Your task to perform on an android device: toggle priority inbox in the gmail app Image 0: 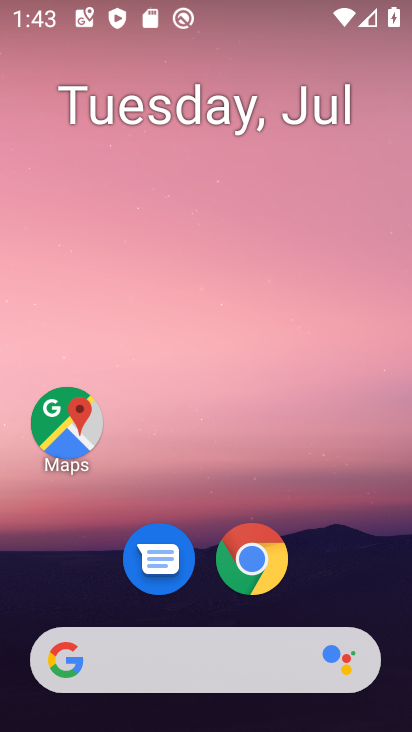
Step 0: press home button
Your task to perform on an android device: toggle priority inbox in the gmail app Image 1: 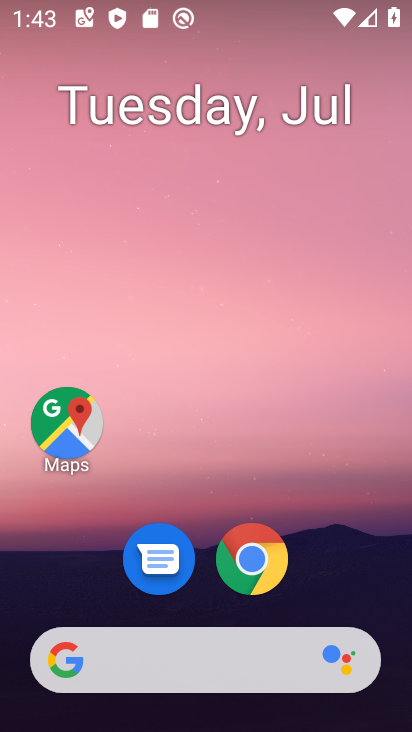
Step 1: drag from (365, 583) to (363, 93)
Your task to perform on an android device: toggle priority inbox in the gmail app Image 2: 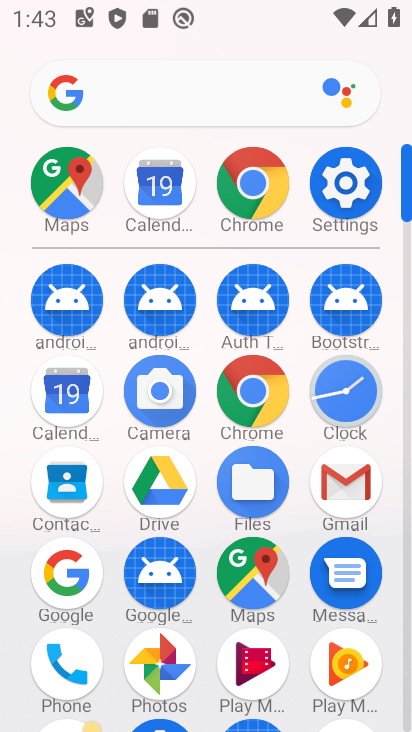
Step 2: click (352, 485)
Your task to perform on an android device: toggle priority inbox in the gmail app Image 3: 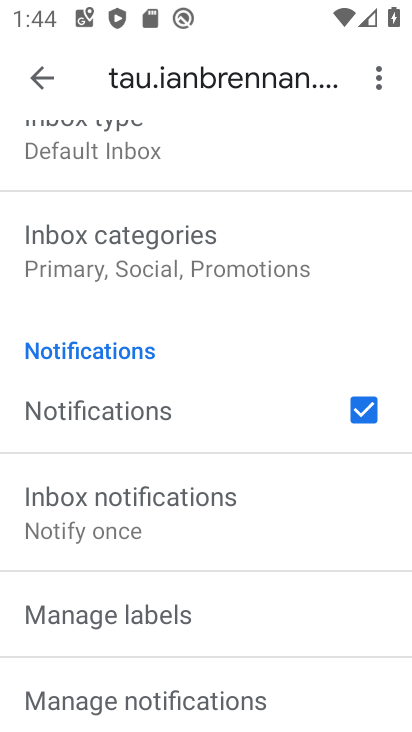
Step 3: drag from (299, 430) to (302, 504)
Your task to perform on an android device: toggle priority inbox in the gmail app Image 4: 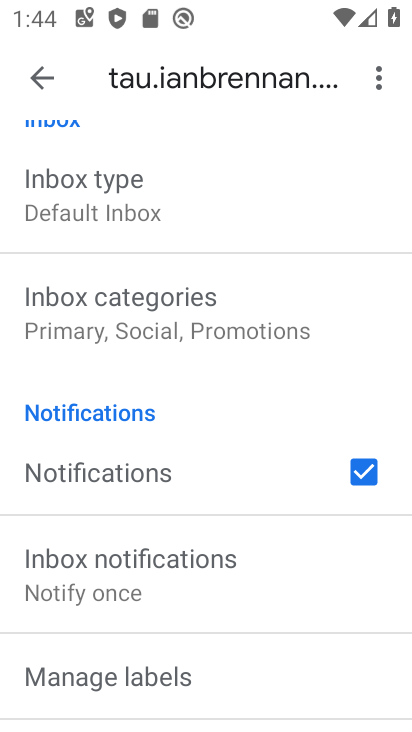
Step 4: drag from (302, 397) to (305, 465)
Your task to perform on an android device: toggle priority inbox in the gmail app Image 5: 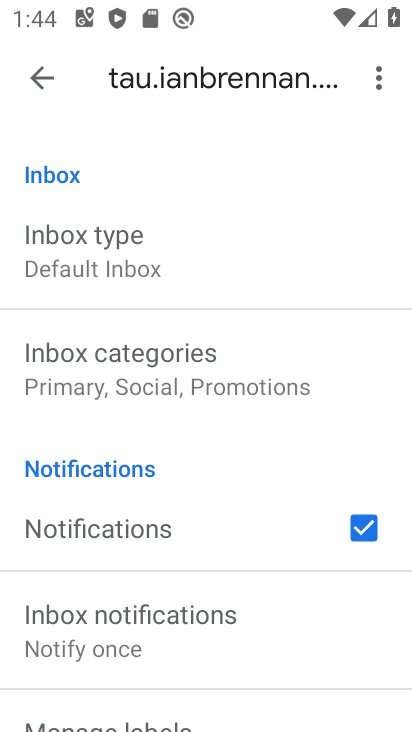
Step 5: drag from (295, 506) to (295, 437)
Your task to perform on an android device: toggle priority inbox in the gmail app Image 6: 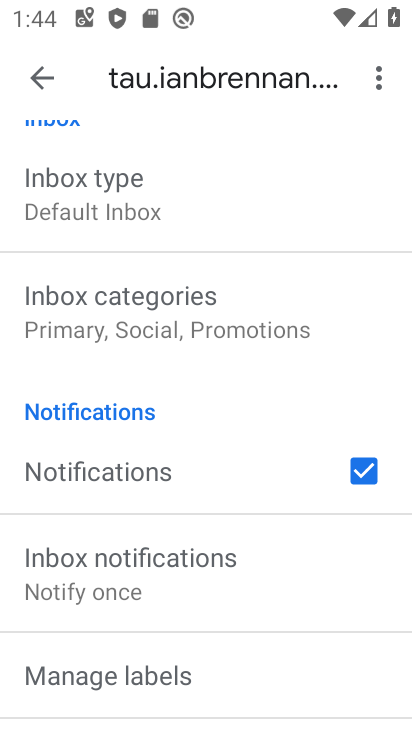
Step 6: drag from (286, 532) to (288, 414)
Your task to perform on an android device: toggle priority inbox in the gmail app Image 7: 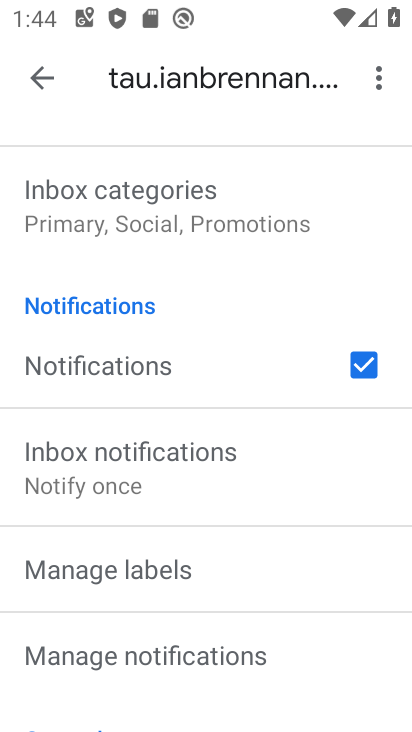
Step 7: drag from (289, 522) to (288, 454)
Your task to perform on an android device: toggle priority inbox in the gmail app Image 8: 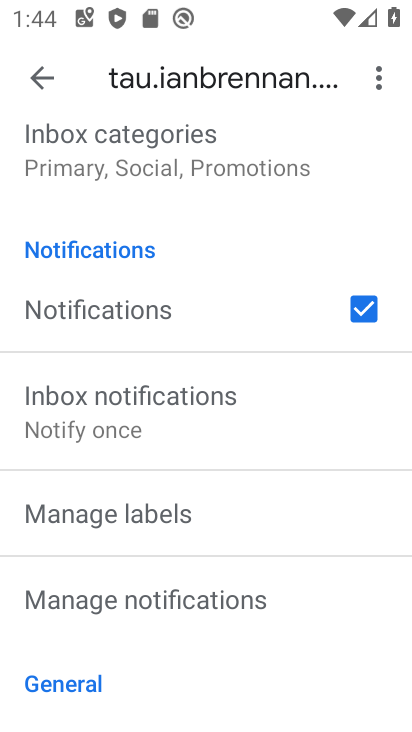
Step 8: drag from (289, 528) to (289, 439)
Your task to perform on an android device: toggle priority inbox in the gmail app Image 9: 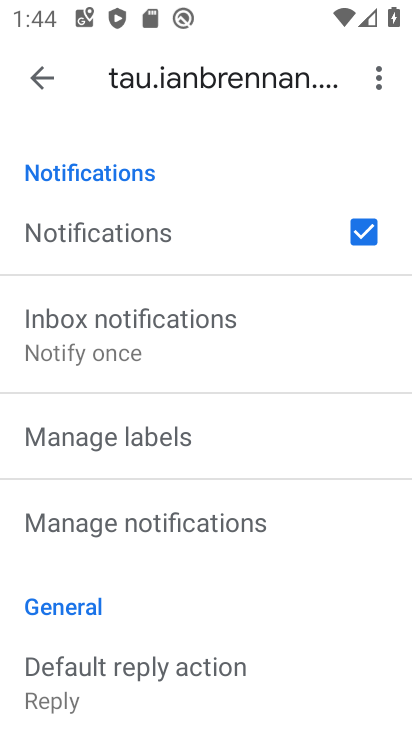
Step 9: drag from (289, 531) to (294, 437)
Your task to perform on an android device: toggle priority inbox in the gmail app Image 10: 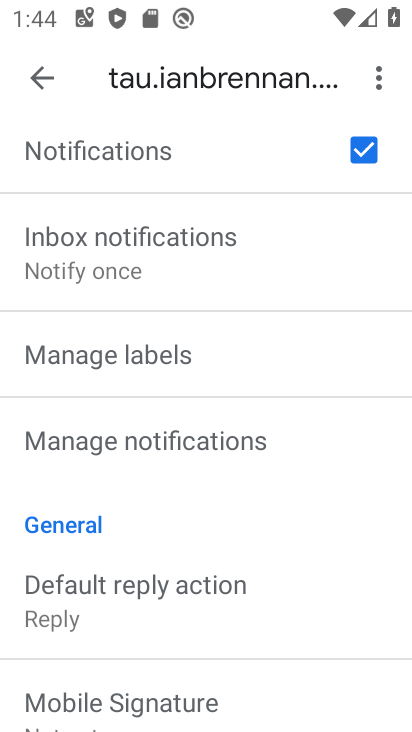
Step 10: drag from (294, 529) to (294, 441)
Your task to perform on an android device: toggle priority inbox in the gmail app Image 11: 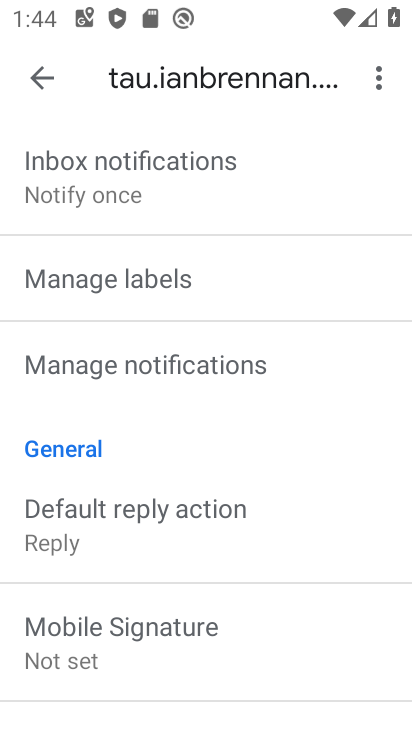
Step 11: drag from (294, 522) to (306, 421)
Your task to perform on an android device: toggle priority inbox in the gmail app Image 12: 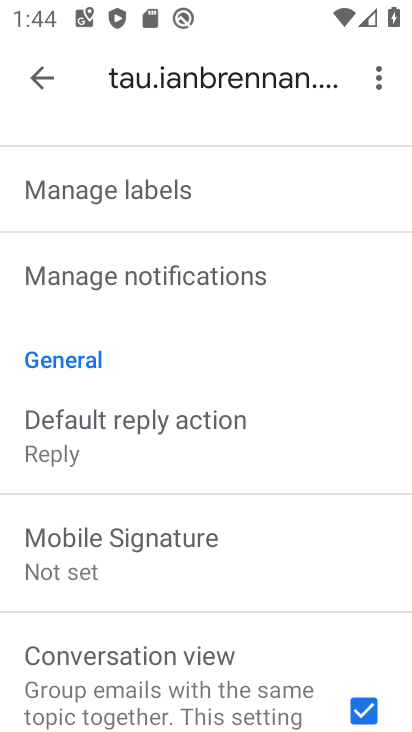
Step 12: drag from (307, 550) to (313, 406)
Your task to perform on an android device: toggle priority inbox in the gmail app Image 13: 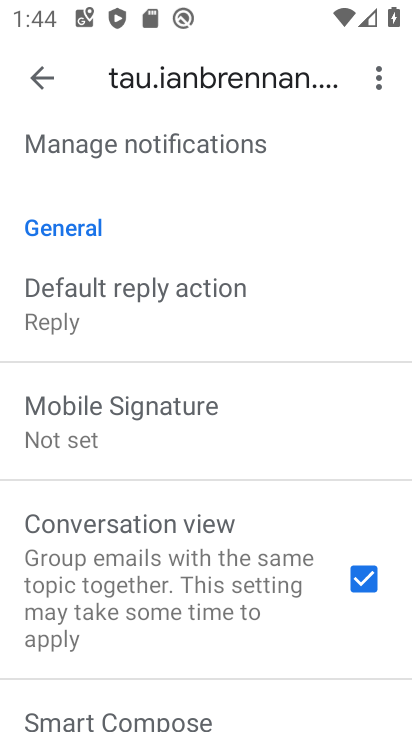
Step 13: drag from (313, 585) to (308, 378)
Your task to perform on an android device: toggle priority inbox in the gmail app Image 14: 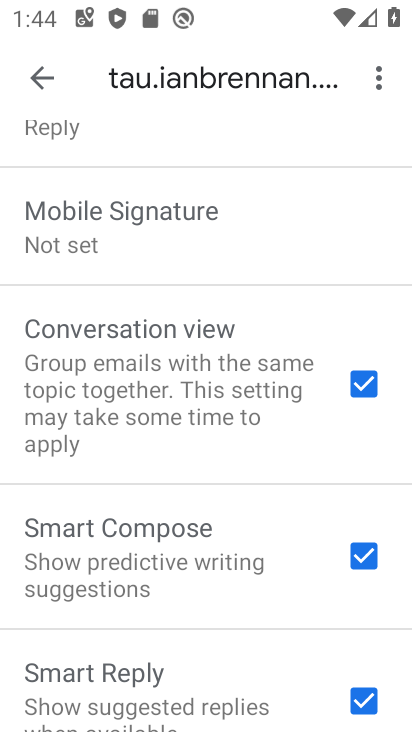
Step 14: drag from (316, 505) to (311, 353)
Your task to perform on an android device: toggle priority inbox in the gmail app Image 15: 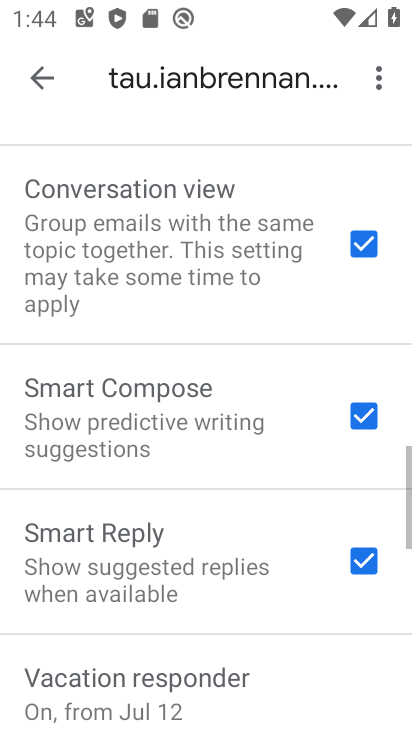
Step 15: drag from (322, 221) to (328, 365)
Your task to perform on an android device: toggle priority inbox in the gmail app Image 16: 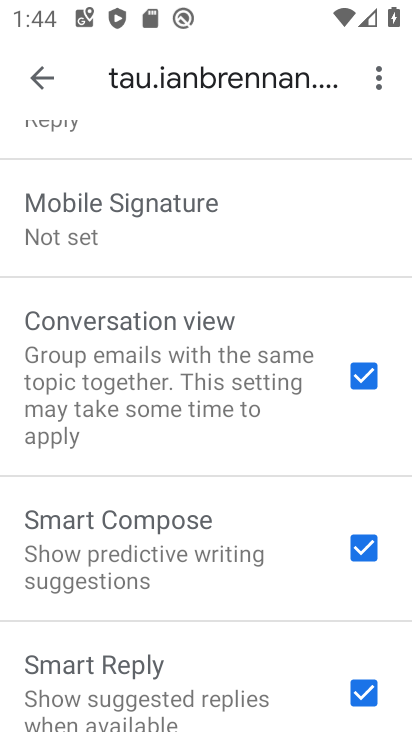
Step 16: drag from (328, 337) to (328, 446)
Your task to perform on an android device: toggle priority inbox in the gmail app Image 17: 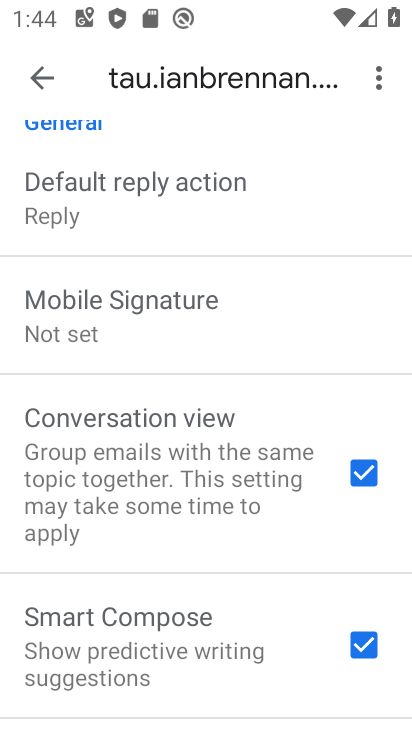
Step 17: drag from (325, 283) to (319, 420)
Your task to perform on an android device: toggle priority inbox in the gmail app Image 18: 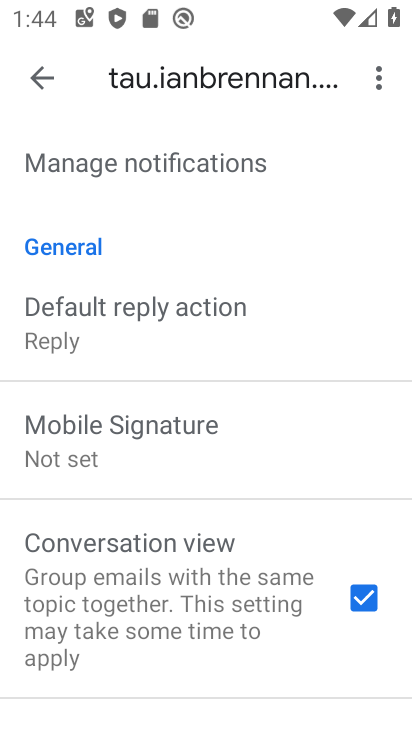
Step 18: drag from (291, 268) to (296, 411)
Your task to perform on an android device: toggle priority inbox in the gmail app Image 19: 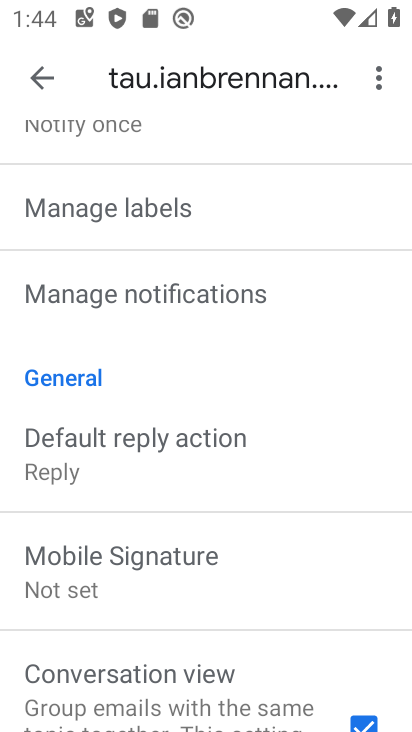
Step 19: drag from (287, 333) to (287, 454)
Your task to perform on an android device: toggle priority inbox in the gmail app Image 20: 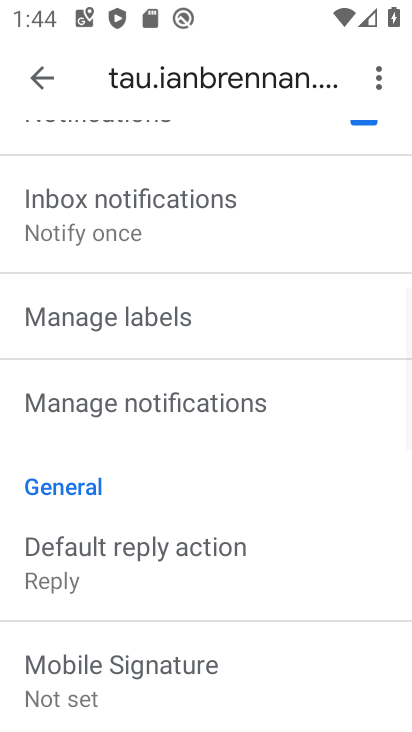
Step 20: drag from (277, 389) to (285, 515)
Your task to perform on an android device: toggle priority inbox in the gmail app Image 21: 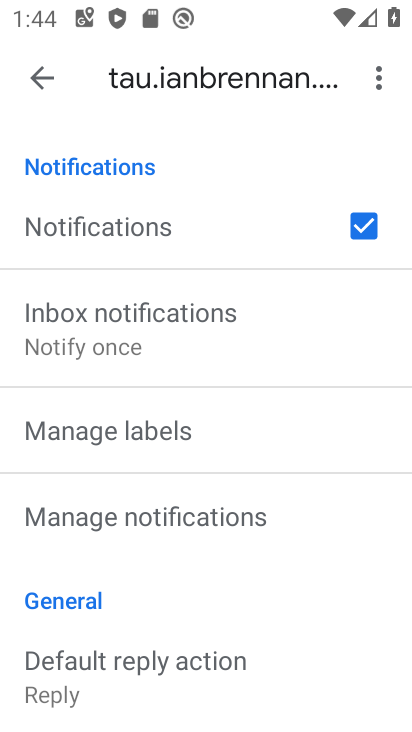
Step 21: drag from (279, 270) to (287, 460)
Your task to perform on an android device: toggle priority inbox in the gmail app Image 22: 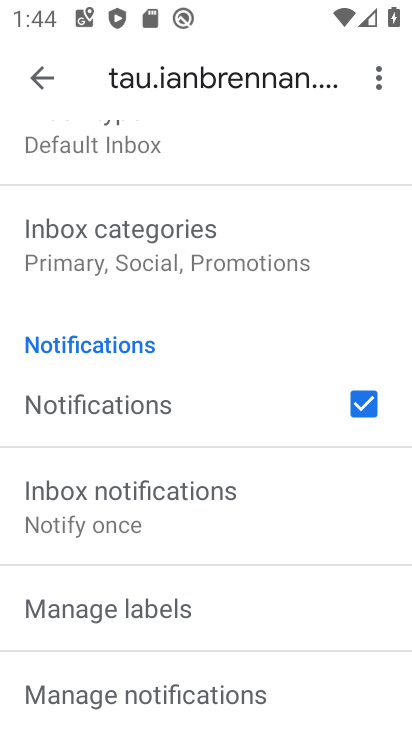
Step 22: drag from (268, 177) to (267, 350)
Your task to perform on an android device: toggle priority inbox in the gmail app Image 23: 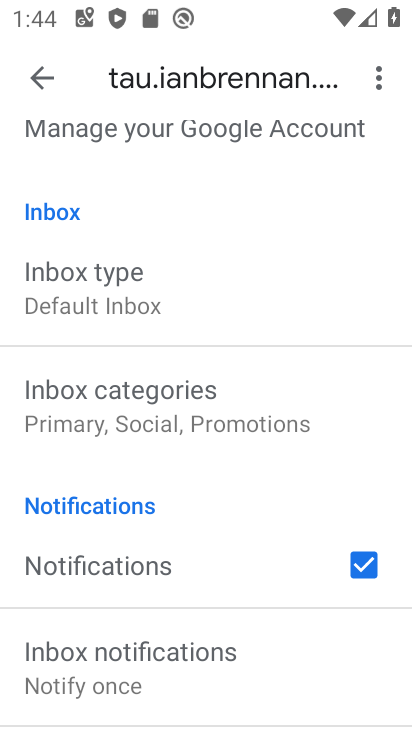
Step 23: click (157, 309)
Your task to perform on an android device: toggle priority inbox in the gmail app Image 24: 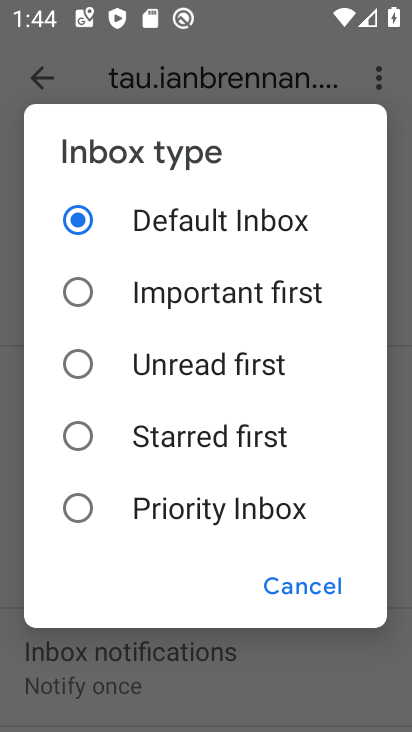
Step 24: click (196, 508)
Your task to perform on an android device: toggle priority inbox in the gmail app Image 25: 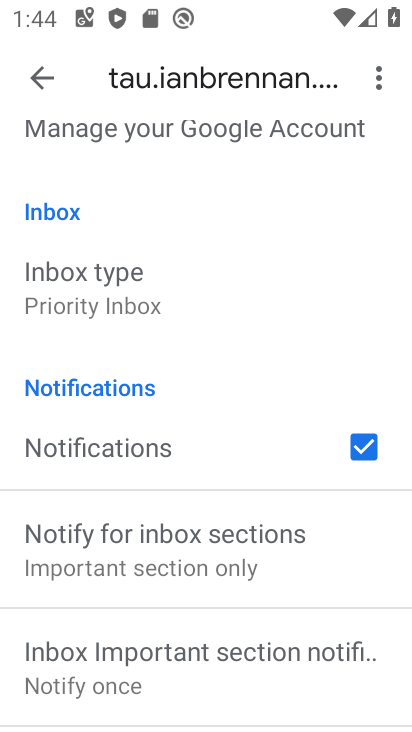
Step 25: task complete